Your task to perform on an android device: open app "Life360: Find Family & Friends" (install if not already installed), go to login, and select forgot password Image 0: 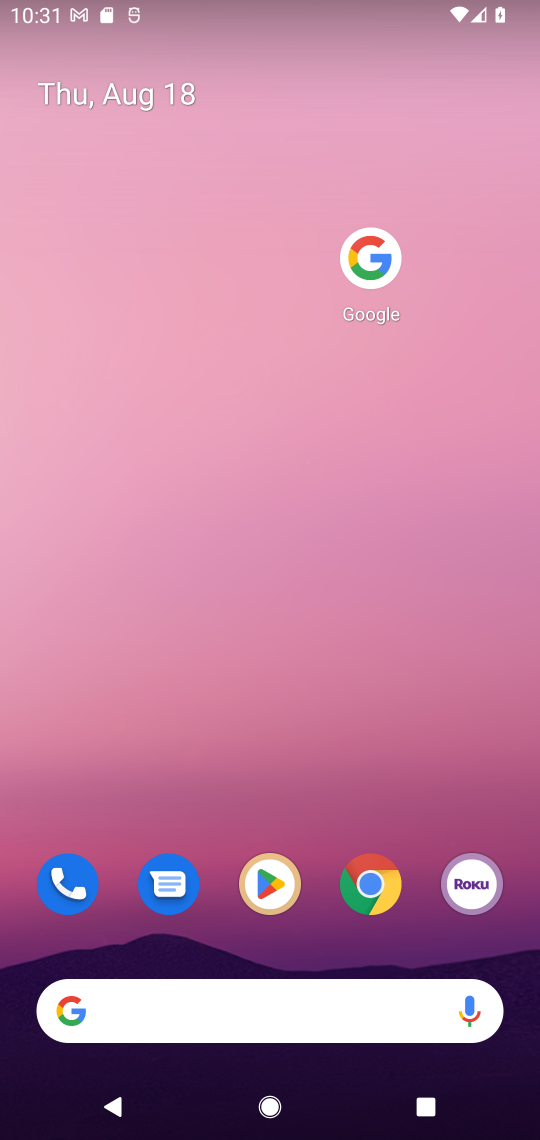
Step 0: click (290, 896)
Your task to perform on an android device: open app "Life360: Find Family & Friends" (install if not already installed), go to login, and select forgot password Image 1: 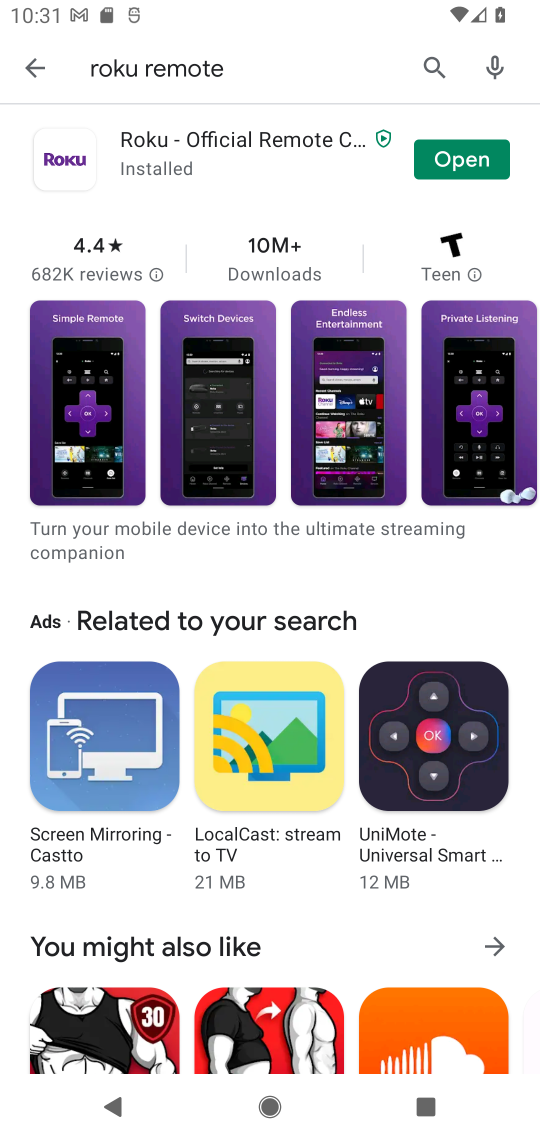
Step 1: click (439, 61)
Your task to perform on an android device: open app "Life360: Find Family & Friends" (install if not already installed), go to login, and select forgot password Image 2: 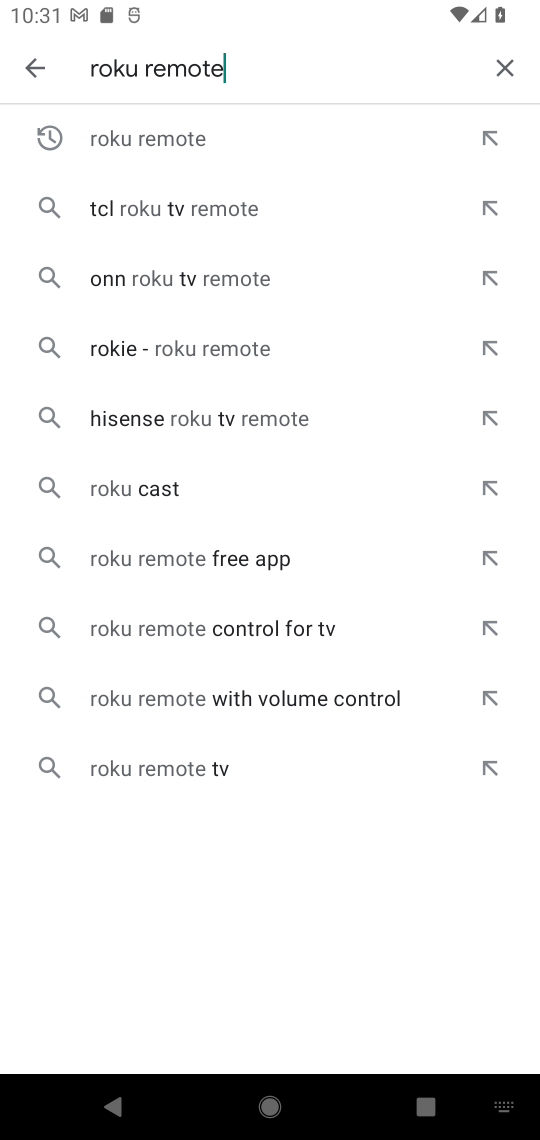
Step 2: click (496, 61)
Your task to perform on an android device: open app "Life360: Find Family & Friends" (install if not already installed), go to login, and select forgot password Image 3: 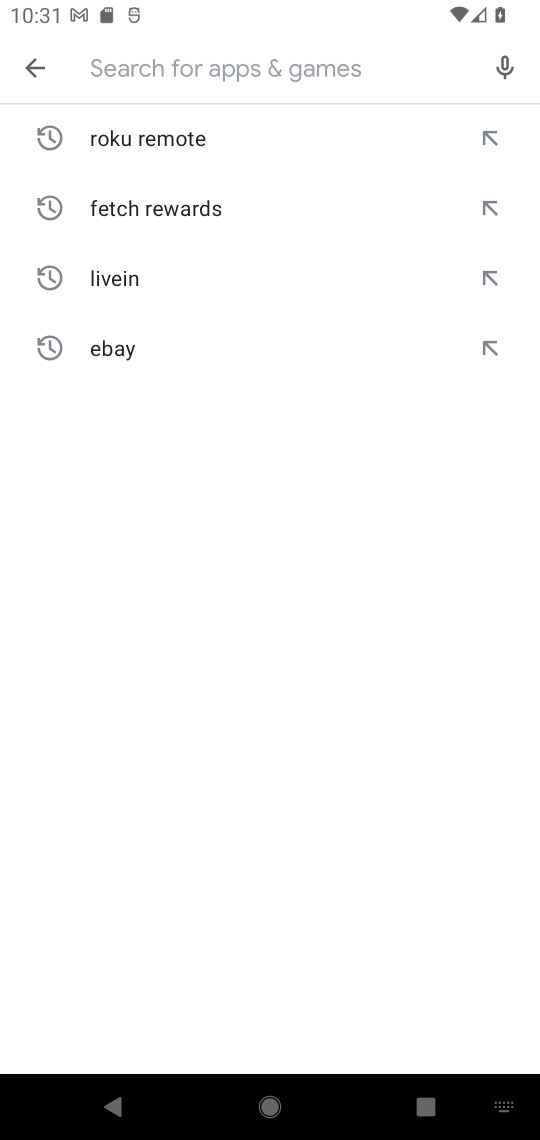
Step 3: type "life 360"
Your task to perform on an android device: open app "Life360: Find Family & Friends" (install if not already installed), go to login, and select forgot password Image 4: 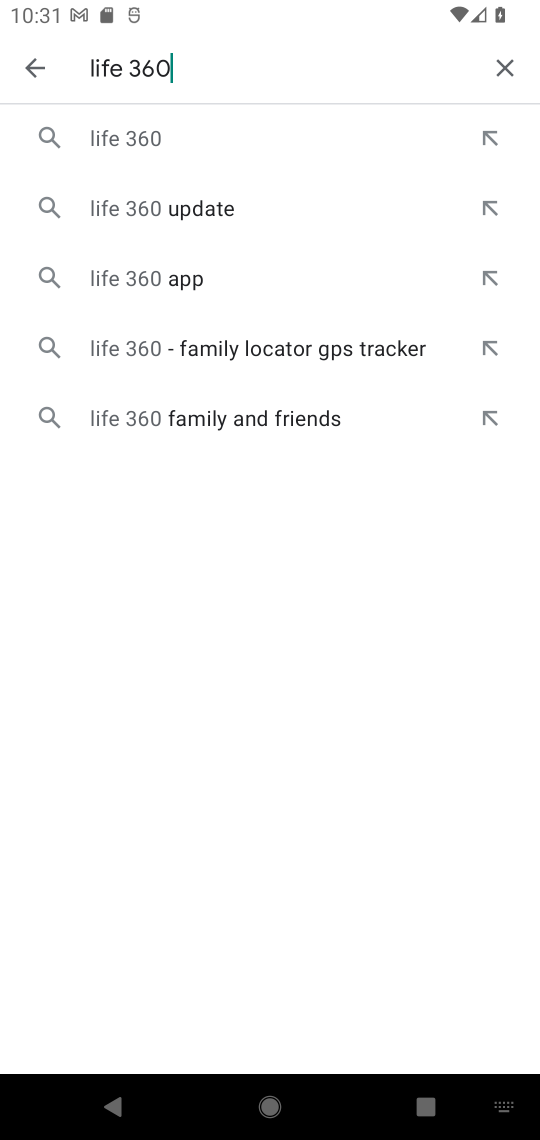
Step 4: click (175, 152)
Your task to perform on an android device: open app "Life360: Find Family & Friends" (install if not already installed), go to login, and select forgot password Image 5: 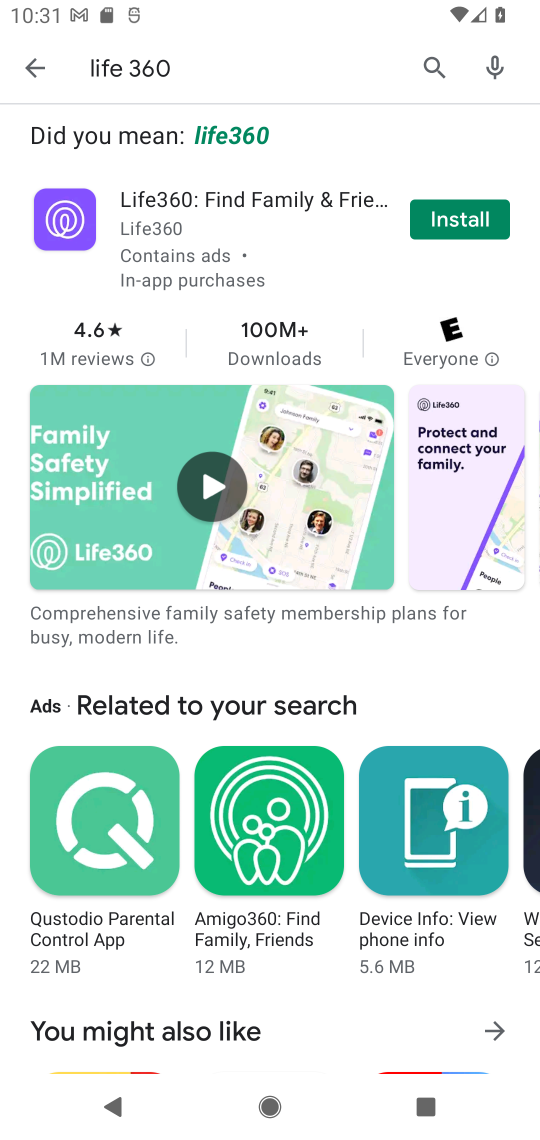
Step 5: click (484, 211)
Your task to perform on an android device: open app "Life360: Find Family & Friends" (install if not already installed), go to login, and select forgot password Image 6: 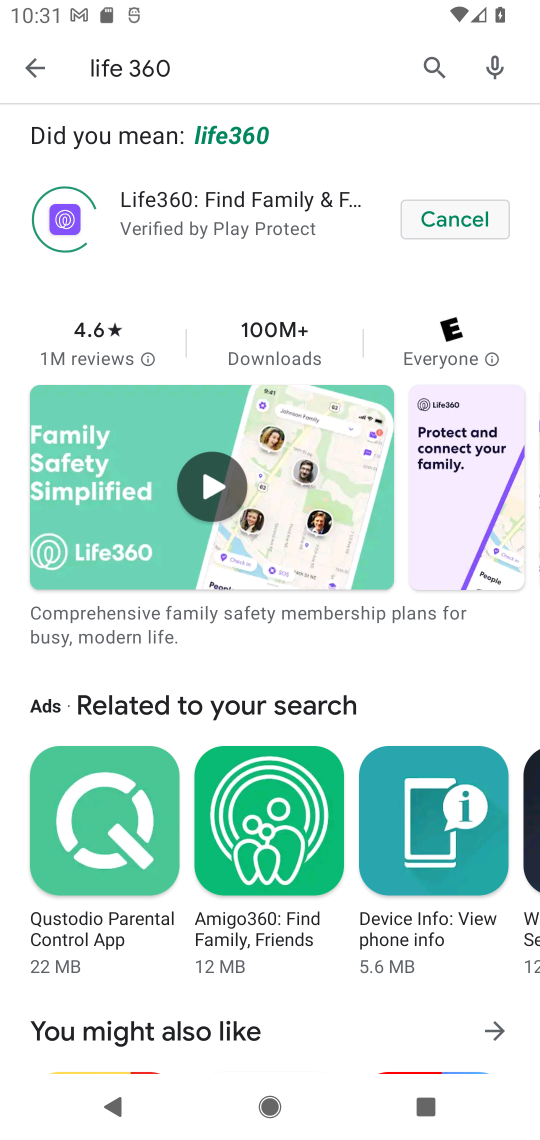
Step 6: task complete